Your task to perform on an android device: turn off smart reply in the gmail app Image 0: 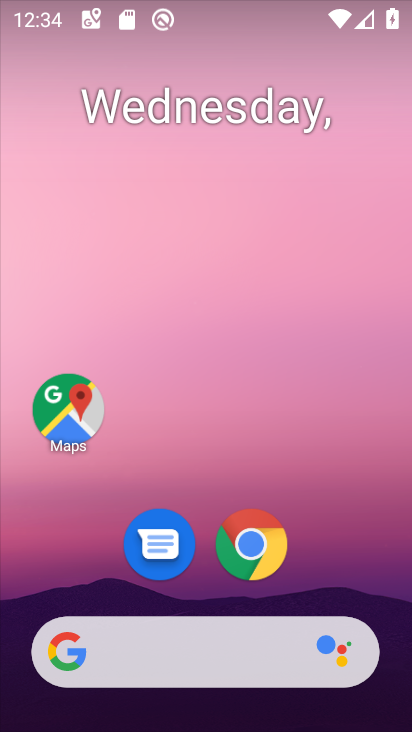
Step 0: drag from (253, 484) to (199, 111)
Your task to perform on an android device: turn off smart reply in the gmail app Image 1: 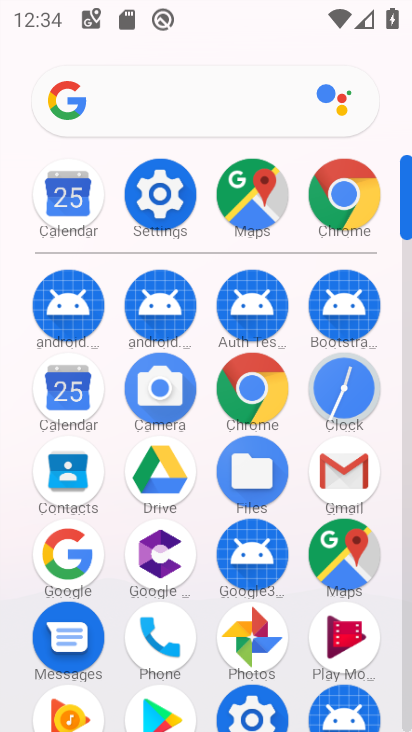
Step 1: click (339, 488)
Your task to perform on an android device: turn off smart reply in the gmail app Image 2: 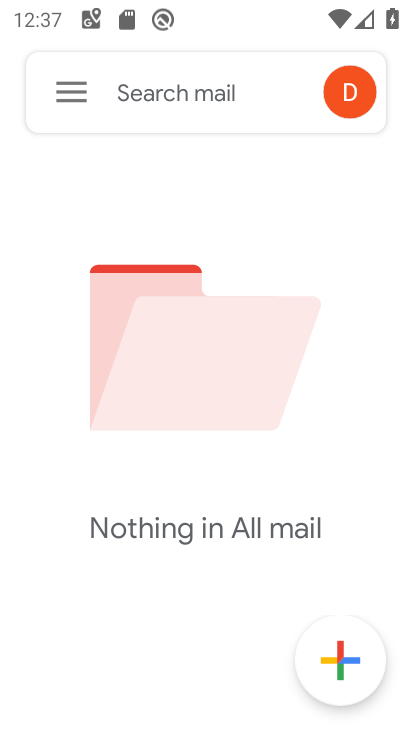
Step 2: click (70, 87)
Your task to perform on an android device: turn off smart reply in the gmail app Image 3: 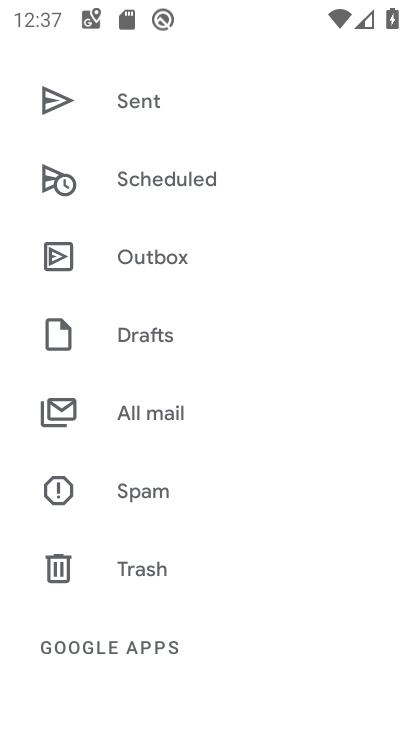
Step 3: drag from (178, 591) to (187, 346)
Your task to perform on an android device: turn off smart reply in the gmail app Image 4: 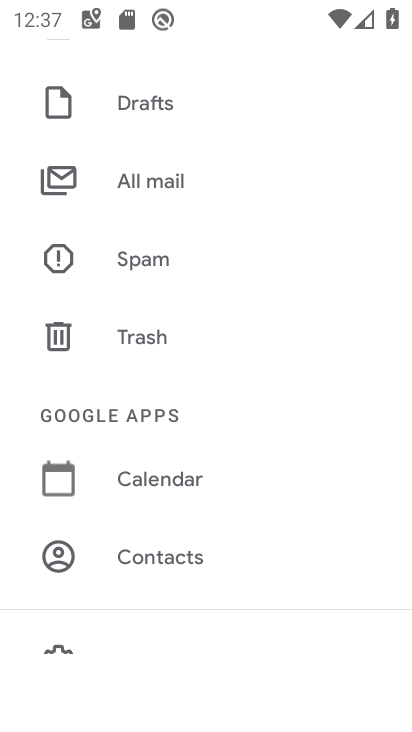
Step 4: drag from (170, 596) to (158, 205)
Your task to perform on an android device: turn off smart reply in the gmail app Image 5: 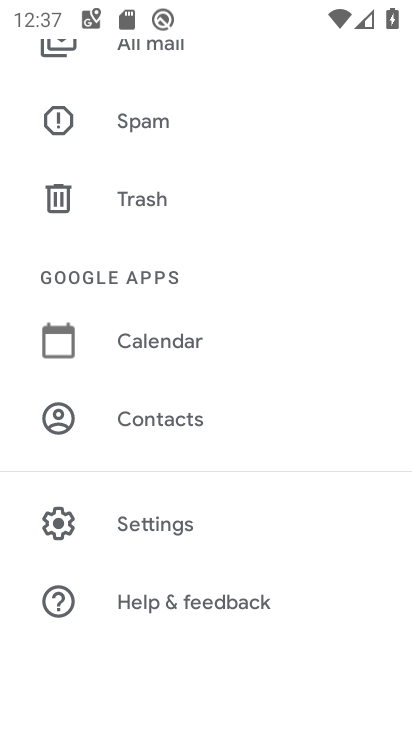
Step 5: click (189, 530)
Your task to perform on an android device: turn off smart reply in the gmail app Image 6: 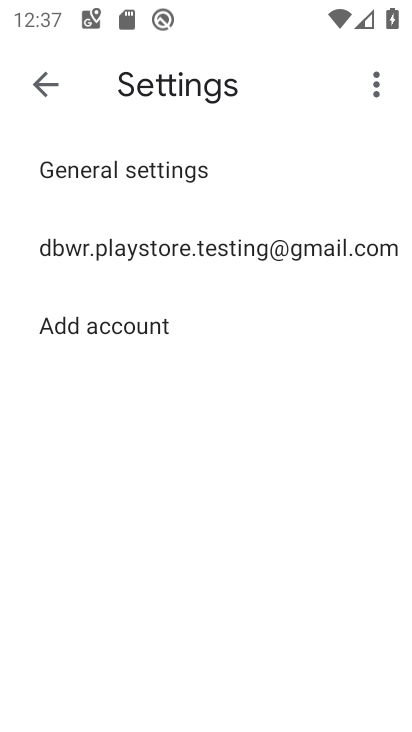
Step 6: click (252, 264)
Your task to perform on an android device: turn off smart reply in the gmail app Image 7: 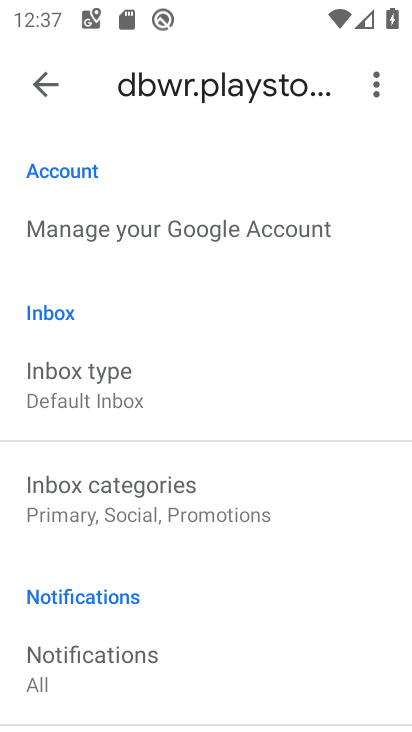
Step 7: task complete